Your task to perform on an android device: Clear the shopping cart on walmart.com. Add energizer triple a to the cart on walmart.com Image 0: 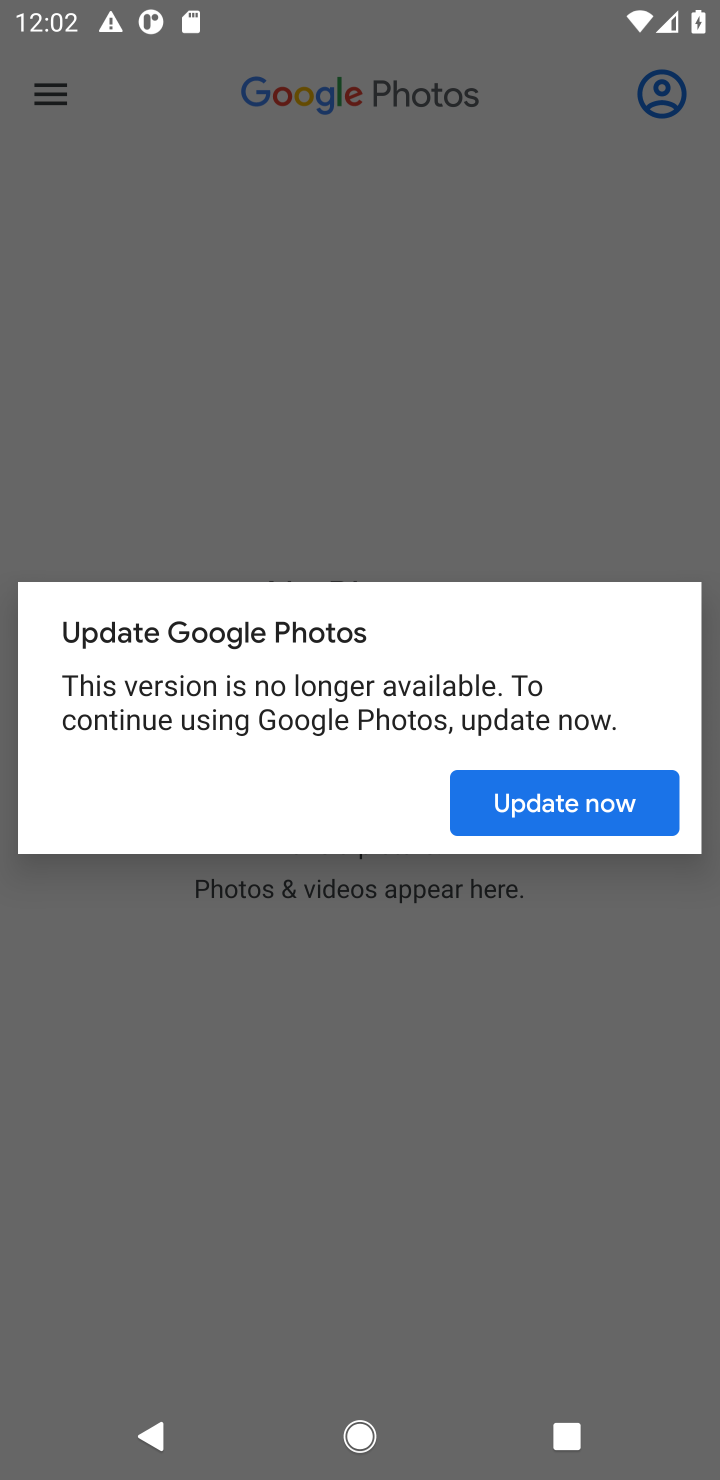
Step 0: press home button
Your task to perform on an android device: Clear the shopping cart on walmart.com. Add energizer triple a to the cart on walmart.com Image 1: 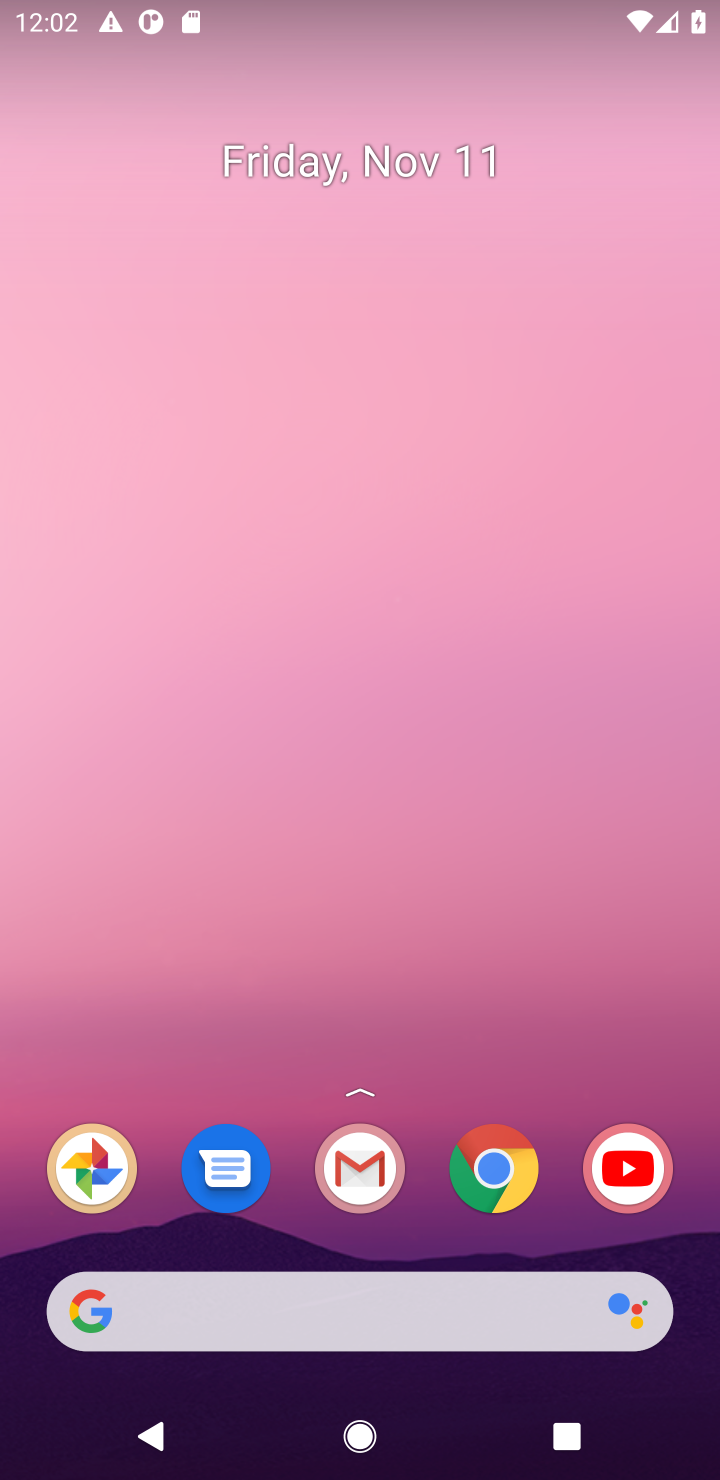
Step 1: click (496, 1183)
Your task to perform on an android device: Clear the shopping cart on walmart.com. Add energizer triple a to the cart on walmart.com Image 2: 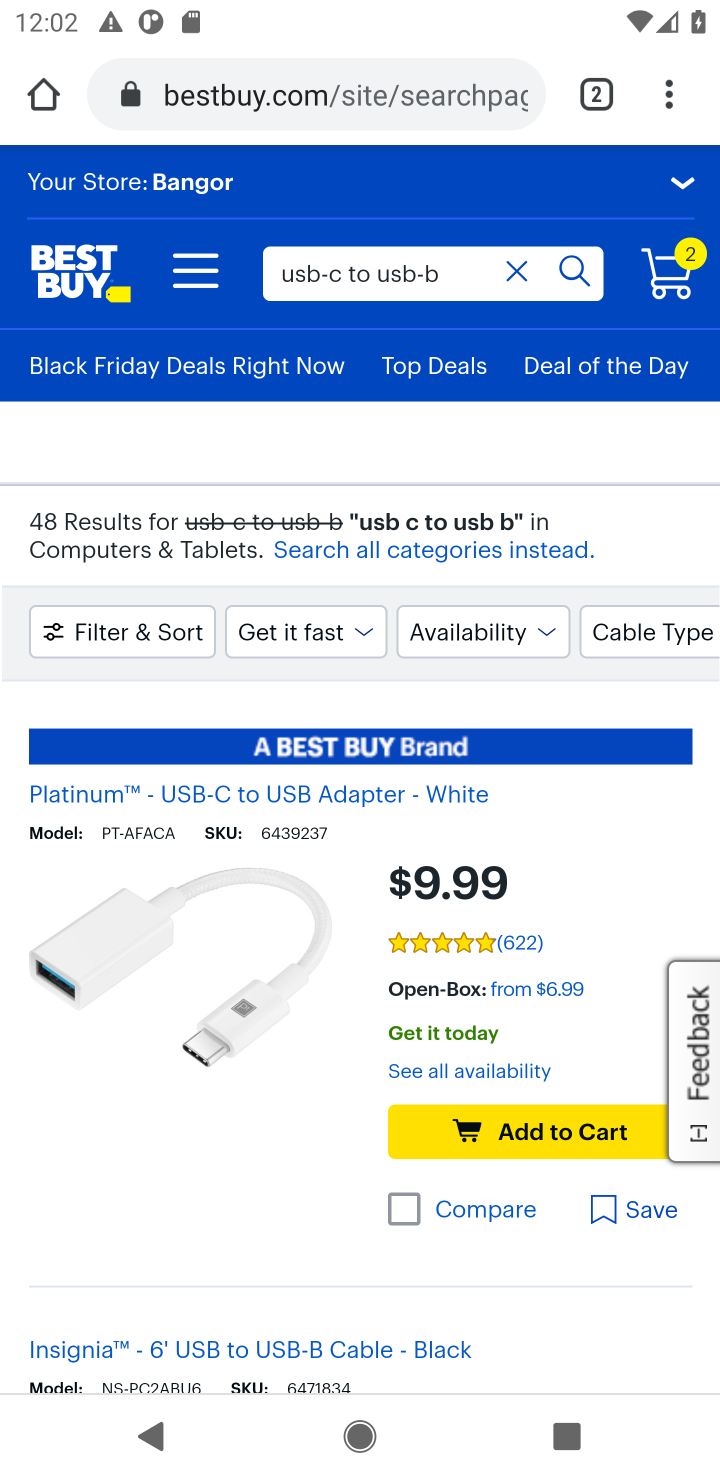
Step 2: click (404, 98)
Your task to perform on an android device: Clear the shopping cart on walmart.com. Add energizer triple a to the cart on walmart.com Image 3: 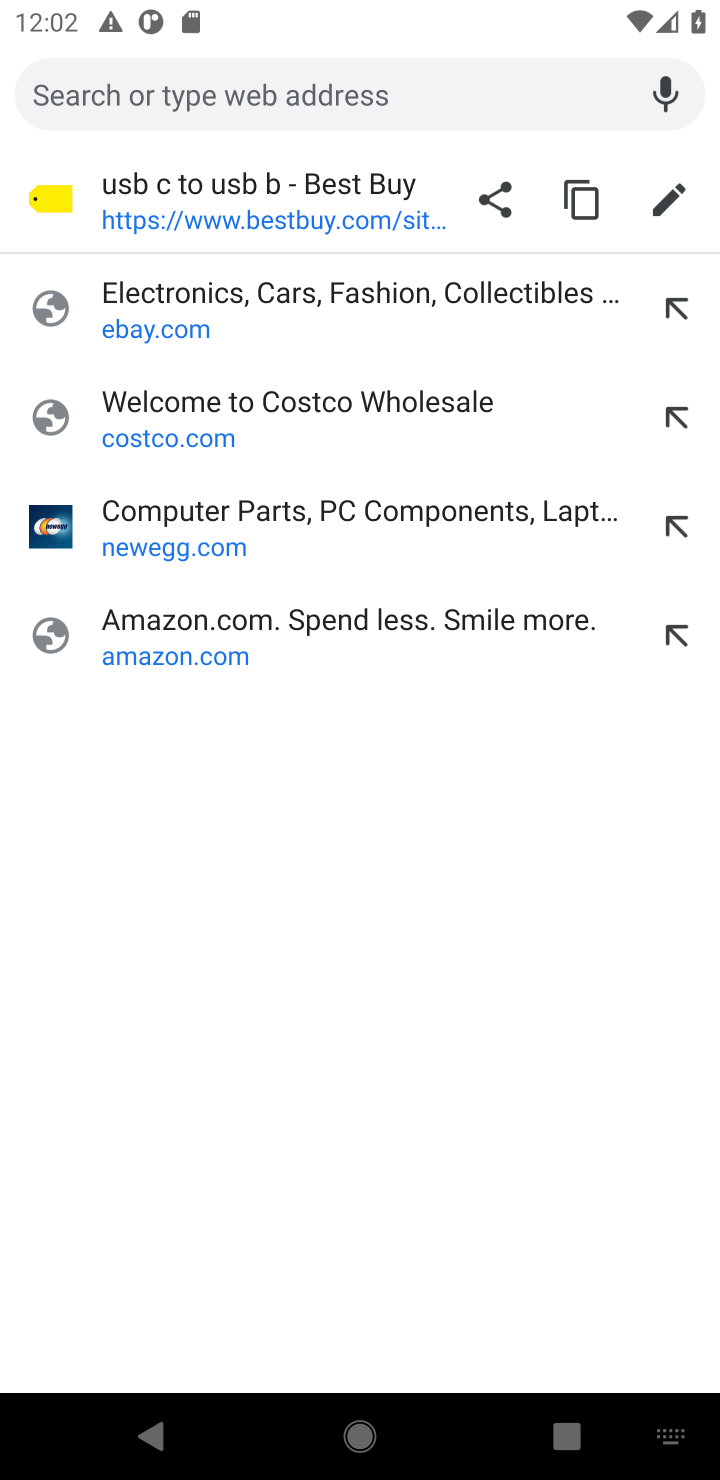
Step 3: type "walmart.com"
Your task to perform on an android device: Clear the shopping cart on walmart.com. Add energizer triple a to the cart on walmart.com Image 4: 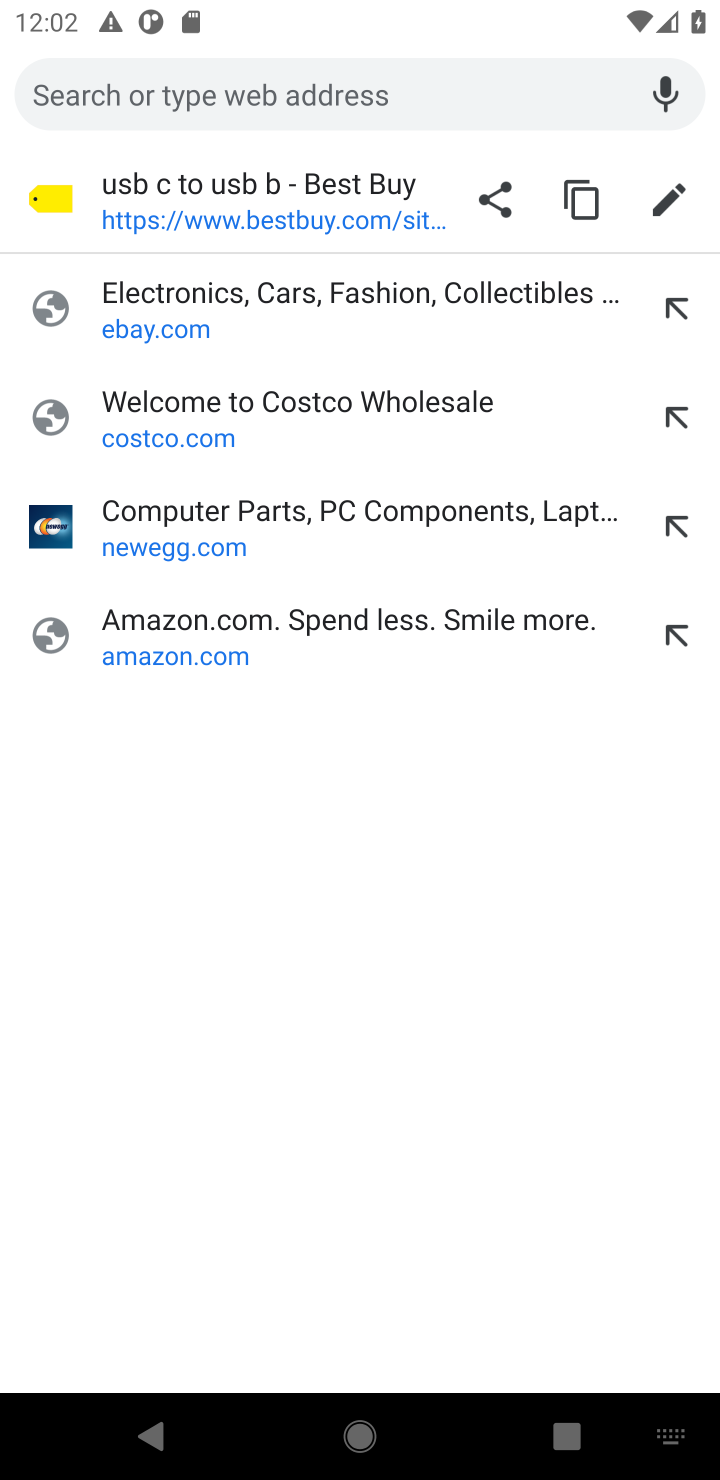
Step 4: click (268, 96)
Your task to perform on an android device: Clear the shopping cart on walmart.com. Add energizer triple a to the cart on walmart.com Image 5: 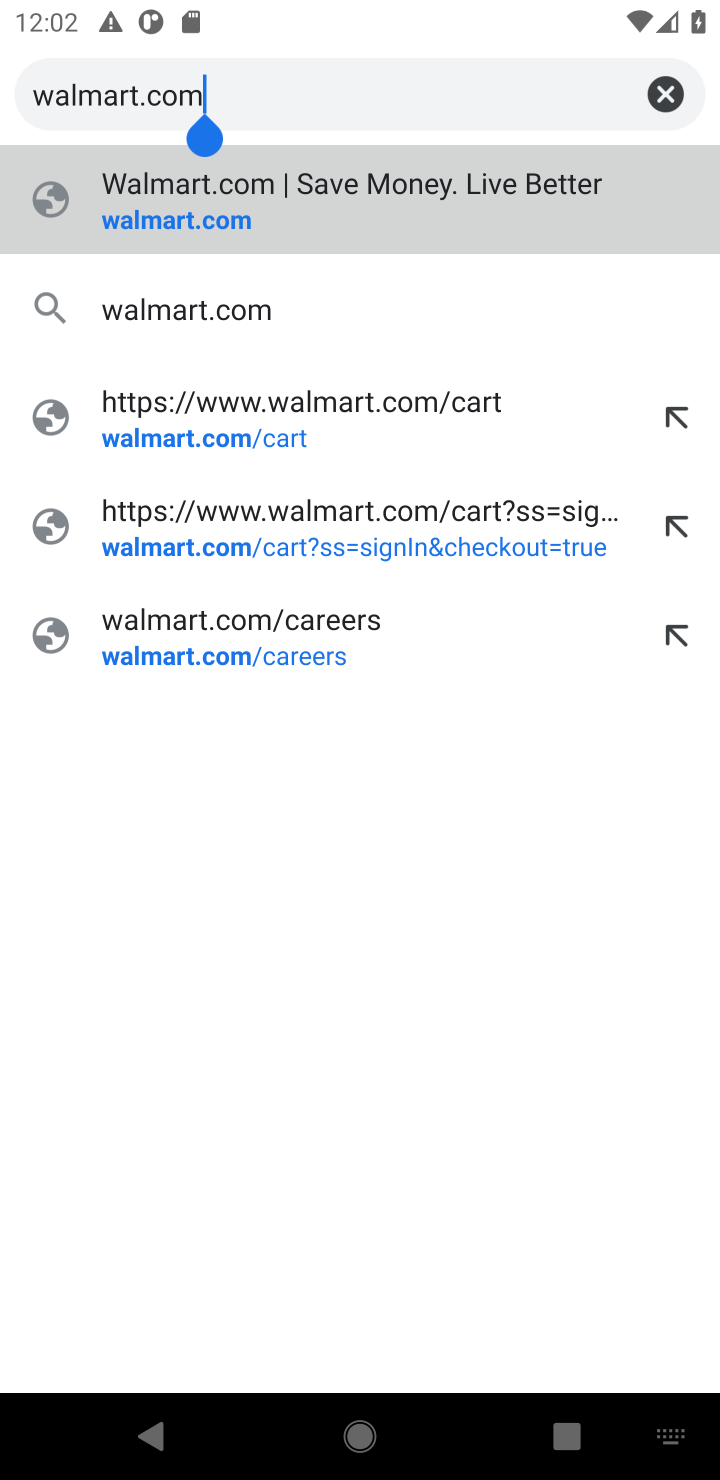
Step 5: click (189, 204)
Your task to perform on an android device: Clear the shopping cart on walmart.com. Add energizer triple a to the cart on walmart.com Image 6: 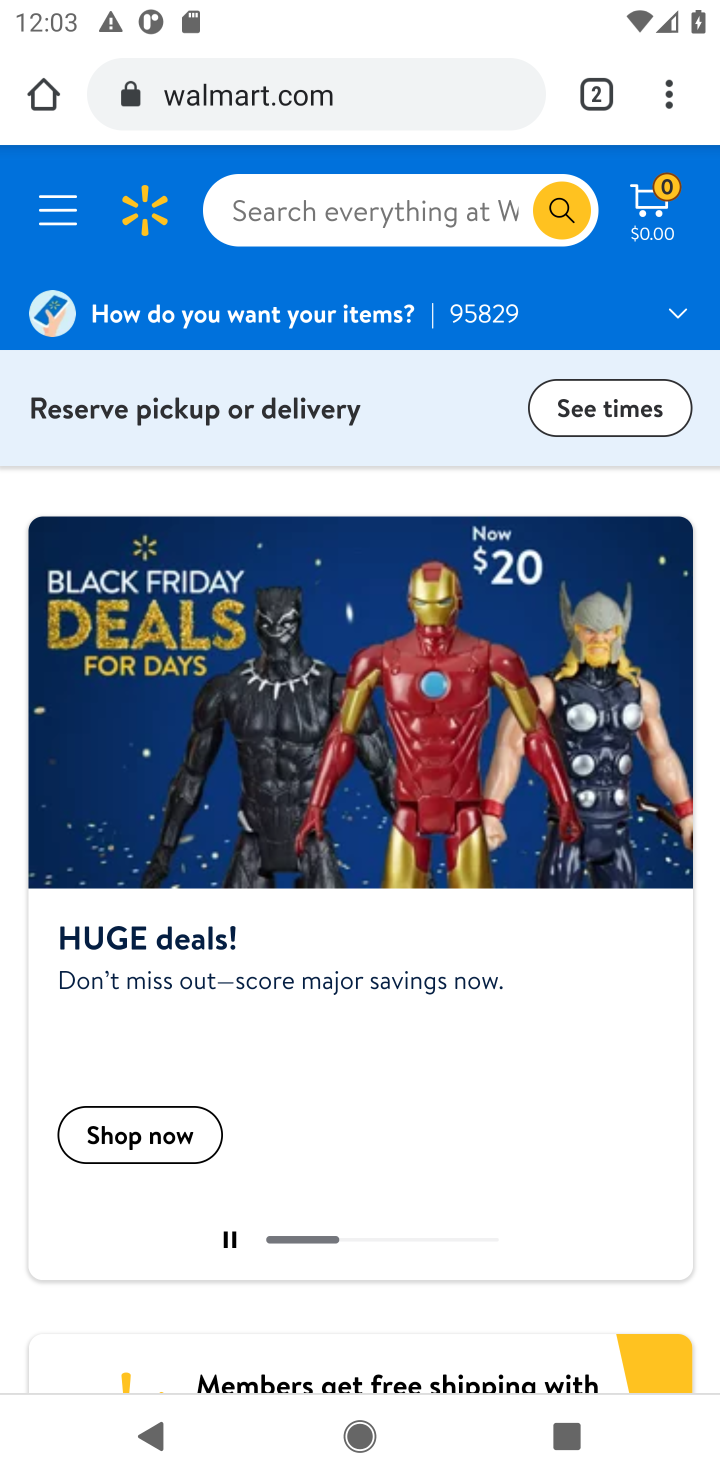
Step 6: click (667, 215)
Your task to perform on an android device: Clear the shopping cart on walmart.com. Add energizer triple a to the cart on walmart.com Image 7: 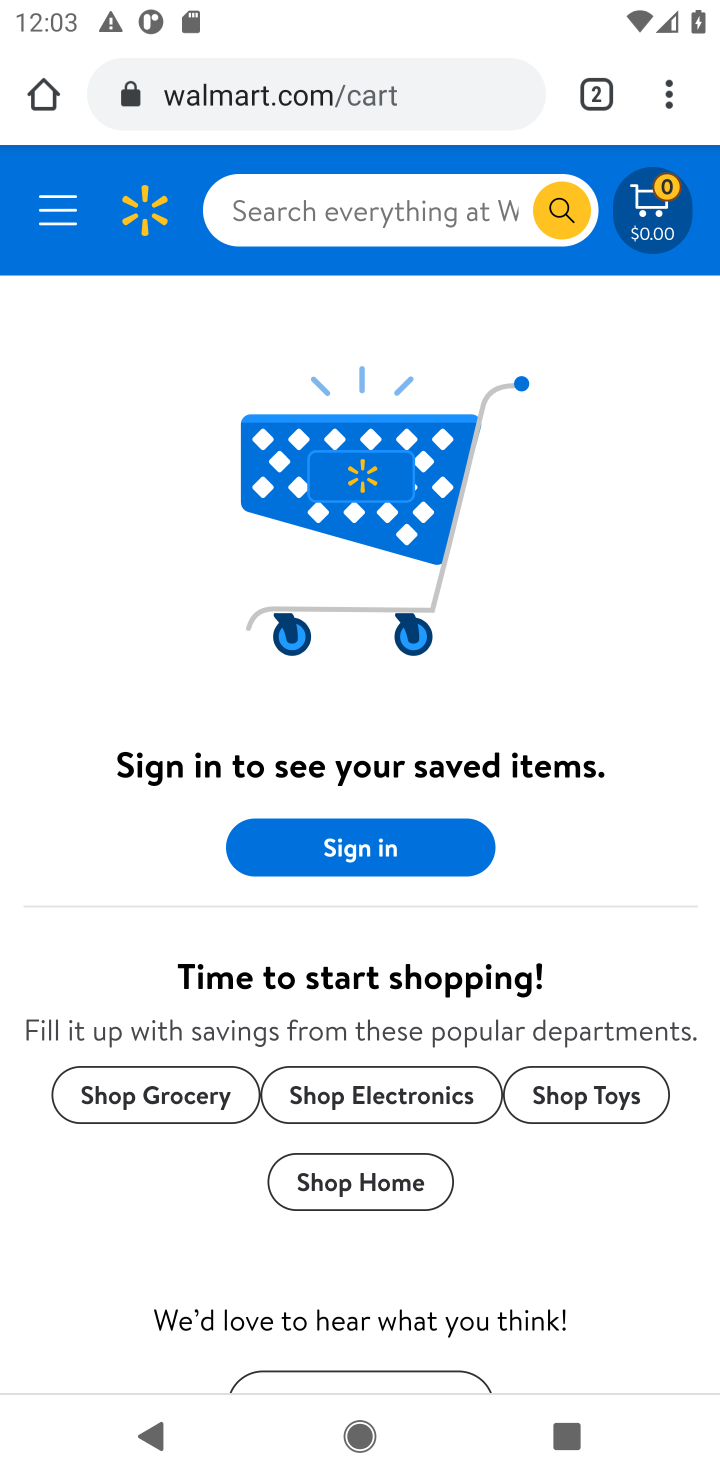
Step 7: click (288, 217)
Your task to perform on an android device: Clear the shopping cart on walmart.com. Add energizer triple a to the cart on walmart.com Image 8: 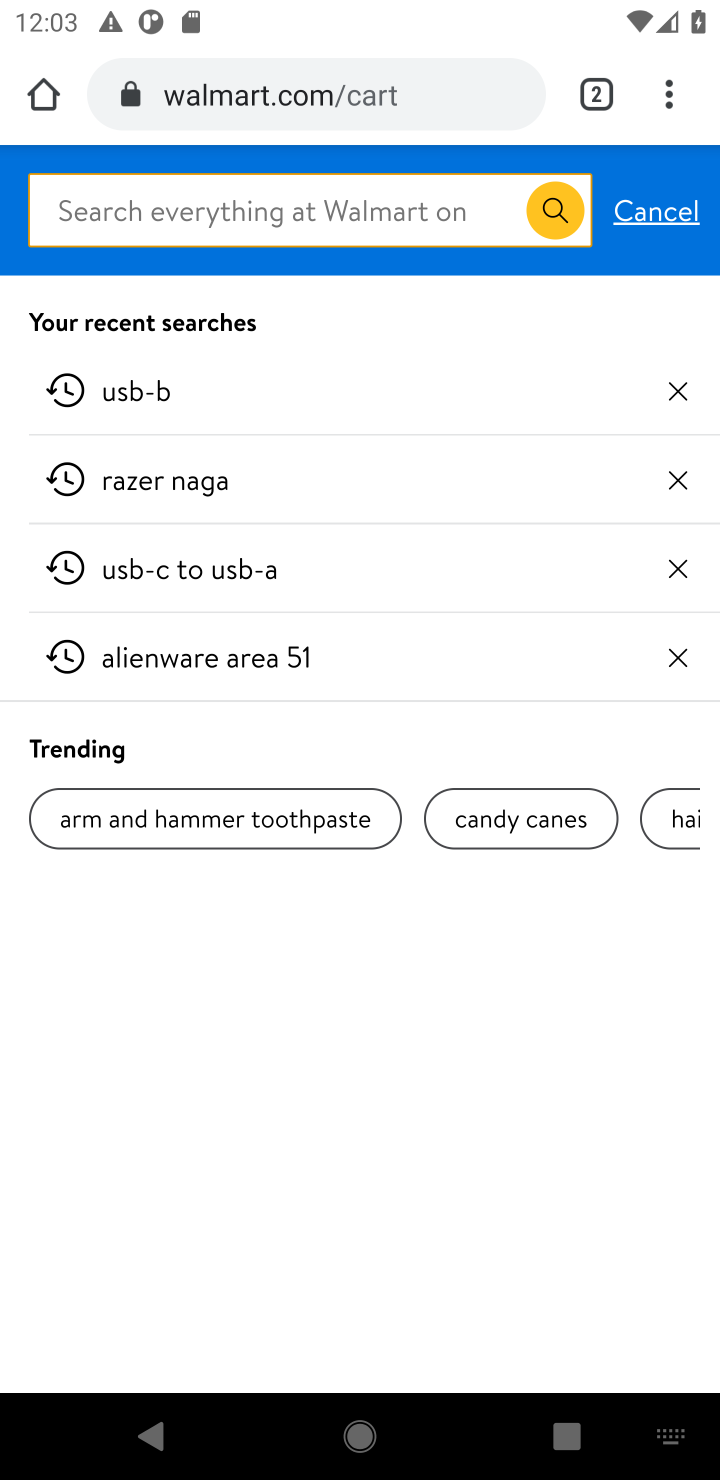
Step 8: type "energizer triple a"
Your task to perform on an android device: Clear the shopping cart on walmart.com. Add energizer triple a to the cart on walmart.com Image 9: 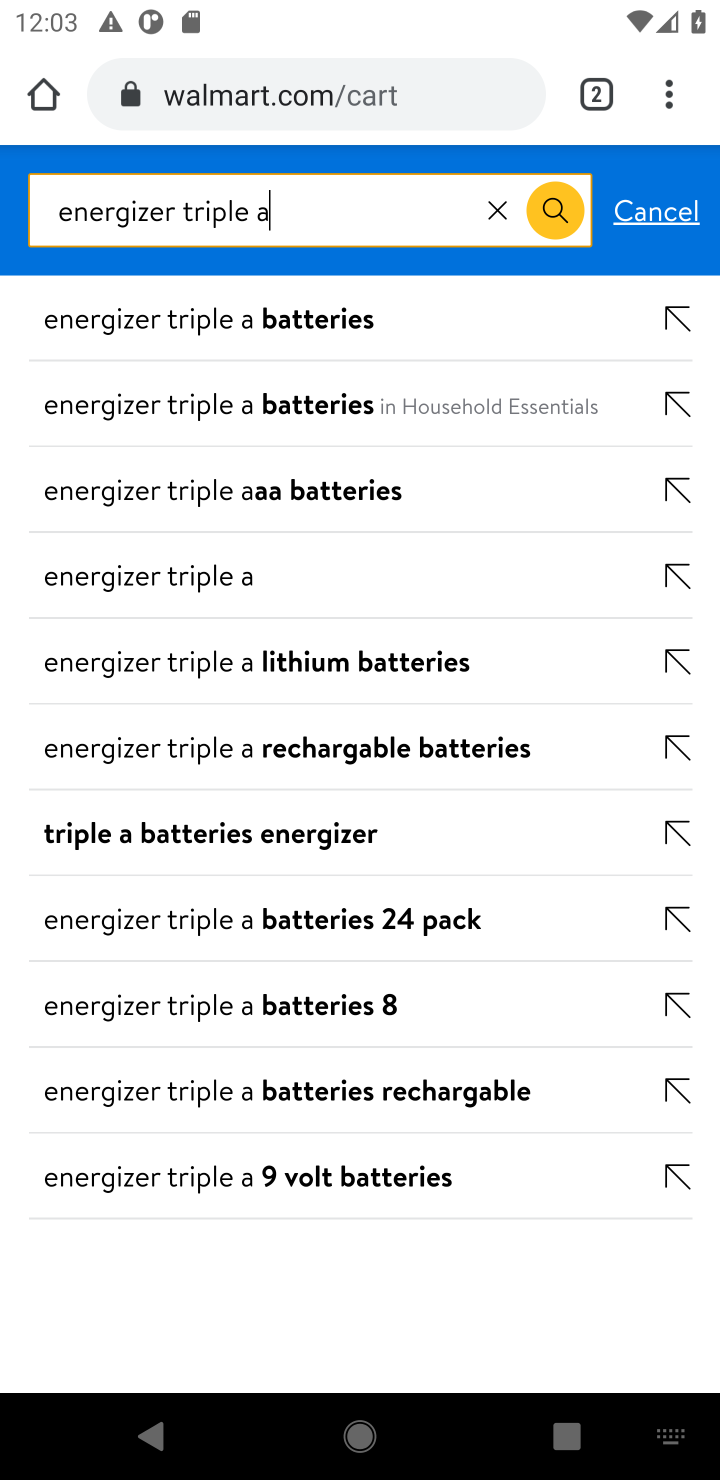
Step 9: click (135, 567)
Your task to perform on an android device: Clear the shopping cart on walmart.com. Add energizer triple a to the cart on walmart.com Image 10: 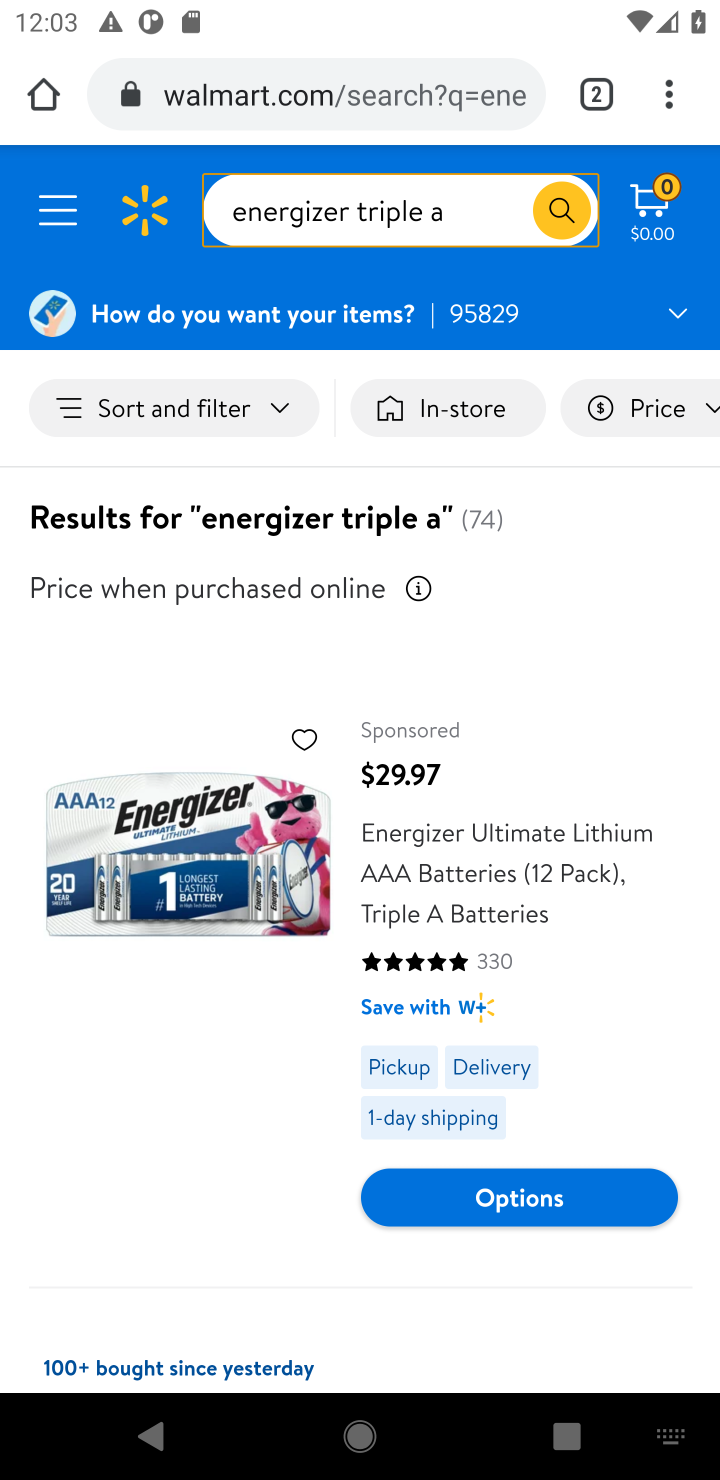
Step 10: click (183, 872)
Your task to perform on an android device: Clear the shopping cart on walmart.com. Add energizer triple a to the cart on walmart.com Image 11: 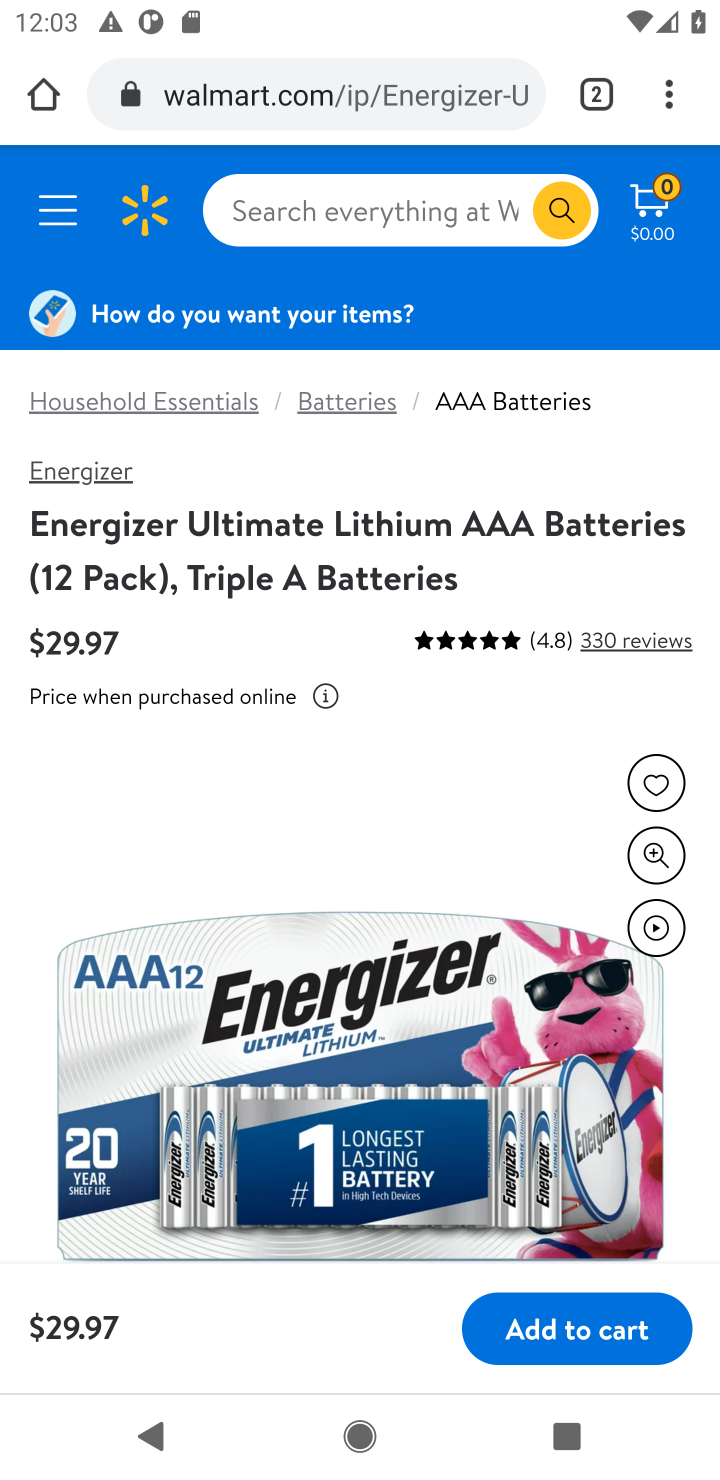
Step 11: click (547, 1319)
Your task to perform on an android device: Clear the shopping cart on walmart.com. Add energizer triple a to the cart on walmart.com Image 12: 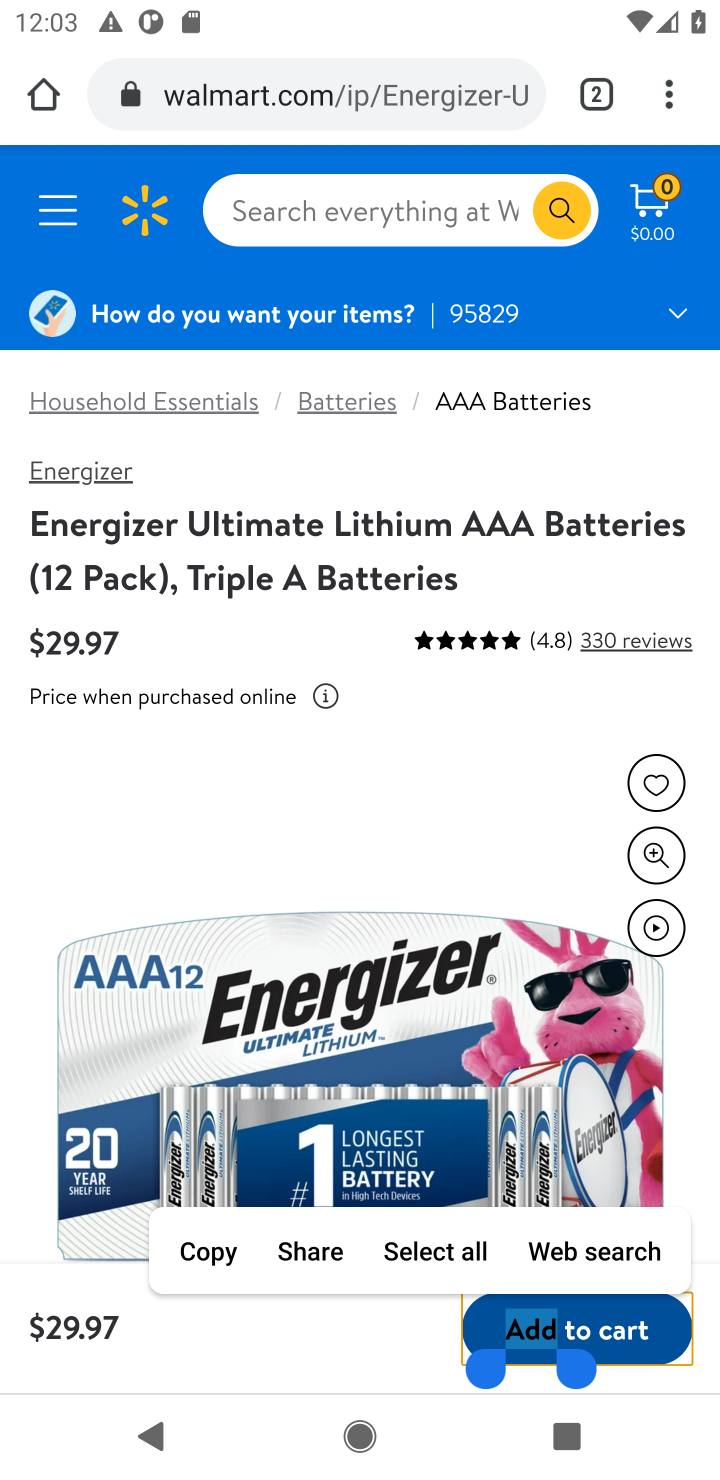
Step 12: click (589, 1336)
Your task to perform on an android device: Clear the shopping cart on walmart.com. Add energizer triple a to the cart on walmart.com Image 13: 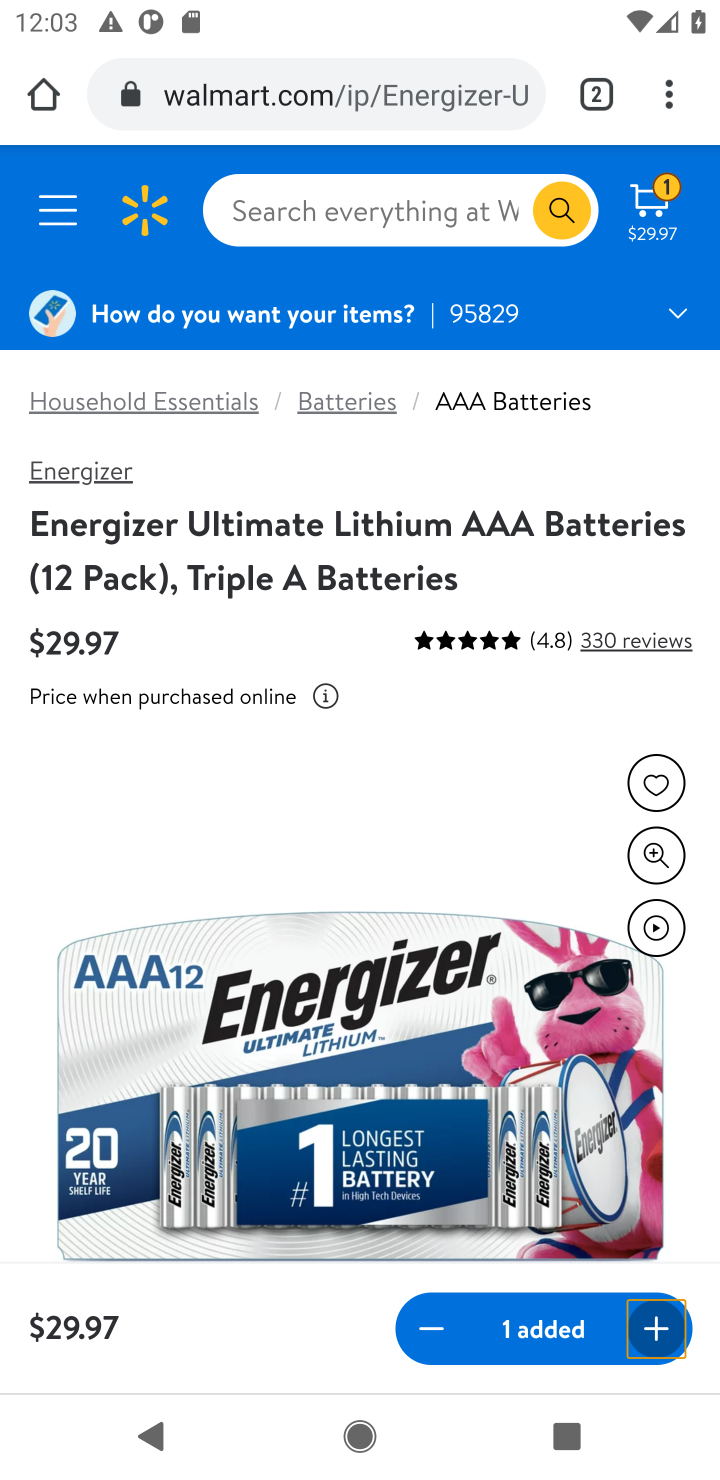
Step 13: task complete